Your task to perform on an android device: Look up the best rated gaming chair on Best Buy Image 0: 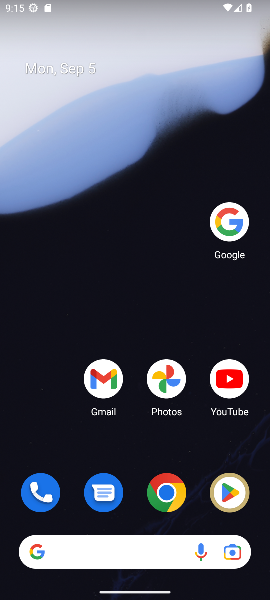
Step 0: click (237, 216)
Your task to perform on an android device: Look up the best rated gaming chair on Best Buy Image 1: 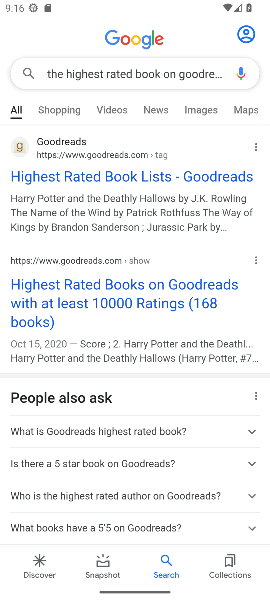
Step 1: click (149, 66)
Your task to perform on an android device: Look up the best rated gaming chair on Best Buy Image 2: 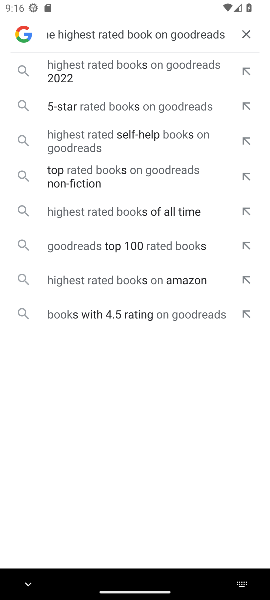
Step 2: click (248, 33)
Your task to perform on an android device: Look up the best rated gaming chair on Best Buy Image 3: 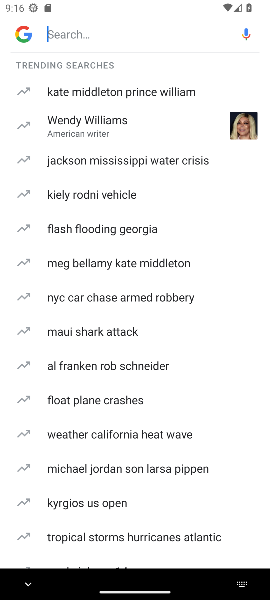
Step 3: click (89, 24)
Your task to perform on an android device: Look up the best rated gaming chair on Best Buy Image 4: 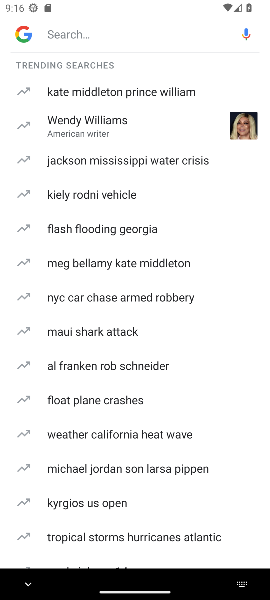
Step 4: type " the best rated gaming chair on Best Buy "
Your task to perform on an android device: Look up the best rated gaming chair on Best Buy Image 5: 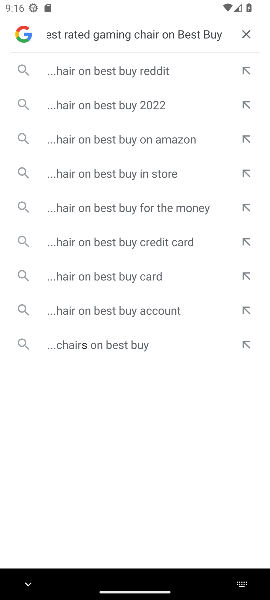
Step 5: click (136, 106)
Your task to perform on an android device: Look up the best rated gaming chair on Best Buy Image 6: 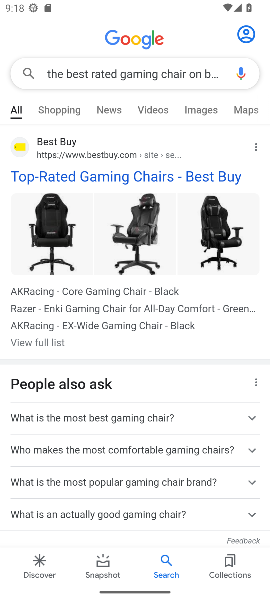
Step 6: task complete